Your task to perform on an android device: Open battery settings Image 0: 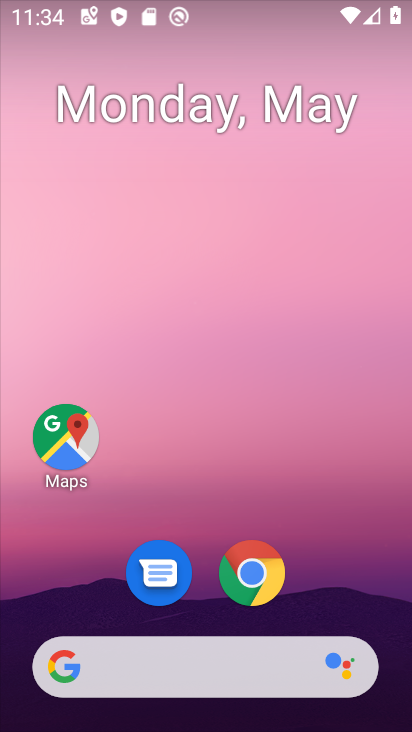
Step 0: drag from (292, 625) to (270, 313)
Your task to perform on an android device: Open battery settings Image 1: 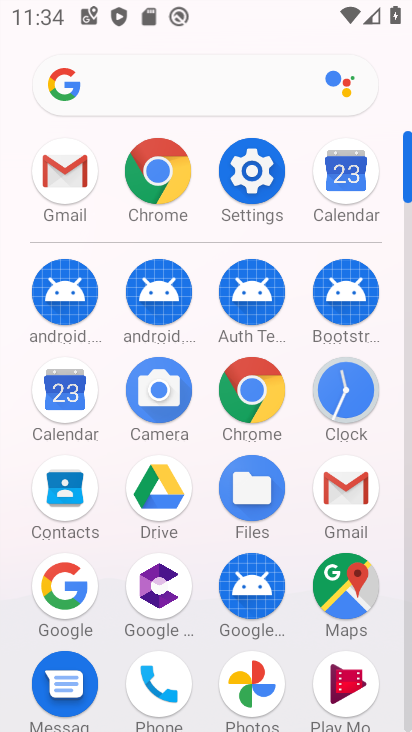
Step 1: click (258, 186)
Your task to perform on an android device: Open battery settings Image 2: 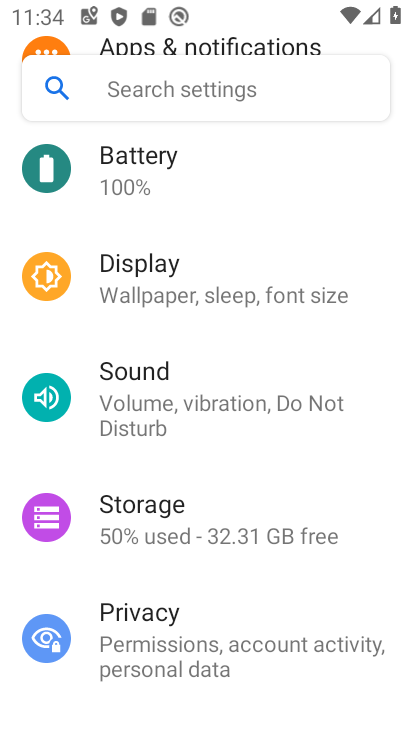
Step 2: drag from (236, 430) to (252, 145)
Your task to perform on an android device: Open battery settings Image 3: 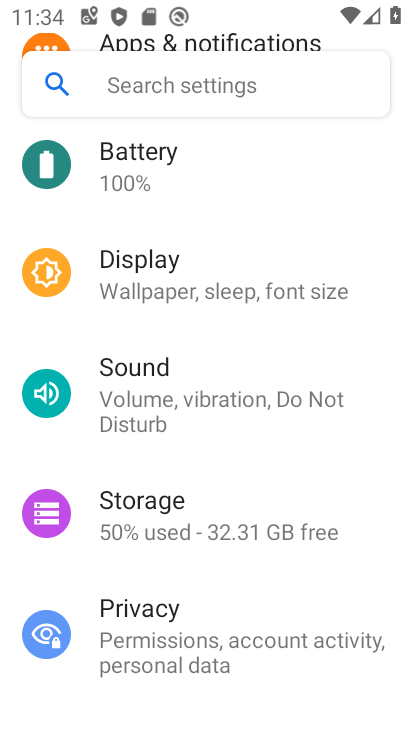
Step 3: click (221, 163)
Your task to perform on an android device: Open battery settings Image 4: 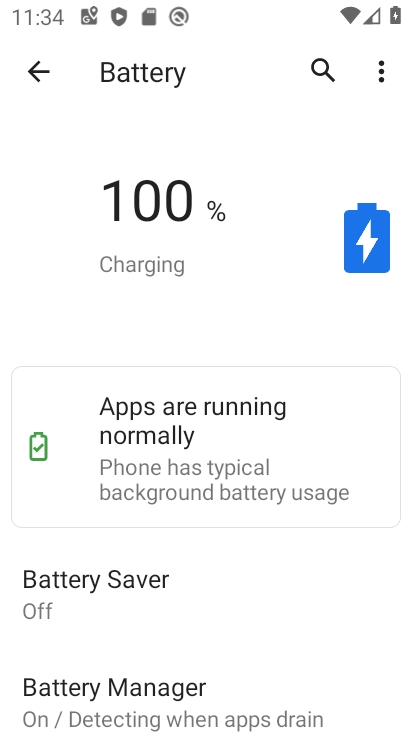
Step 4: task complete